Your task to perform on an android device: Search for apple airpods on amazon.com, select the first entry, add it to the cart, then select checkout. Image 0: 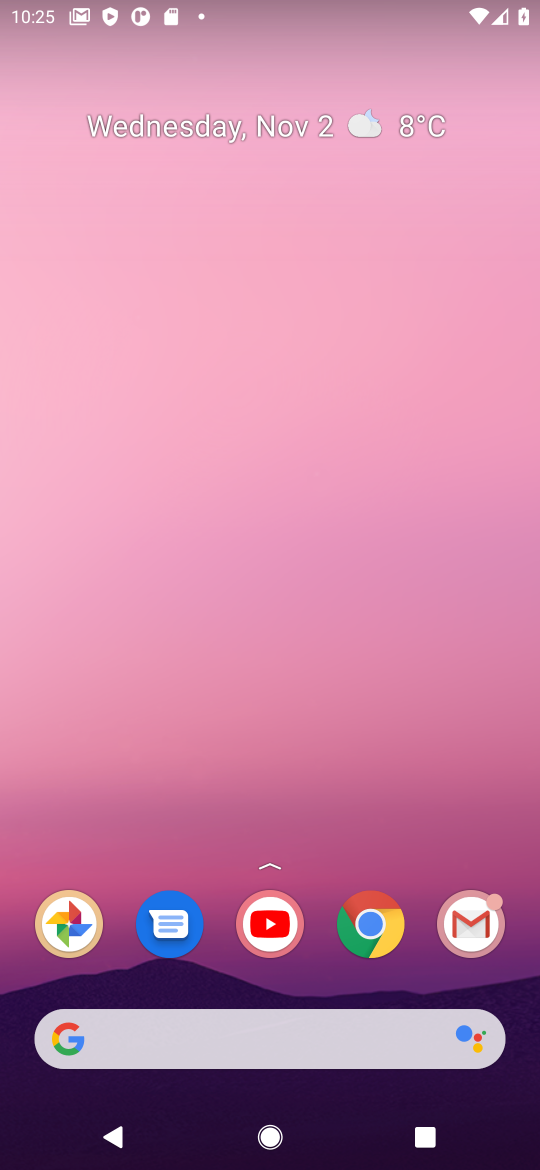
Step 0: press home button
Your task to perform on an android device: Search for apple airpods on amazon.com, select the first entry, add it to the cart, then select checkout. Image 1: 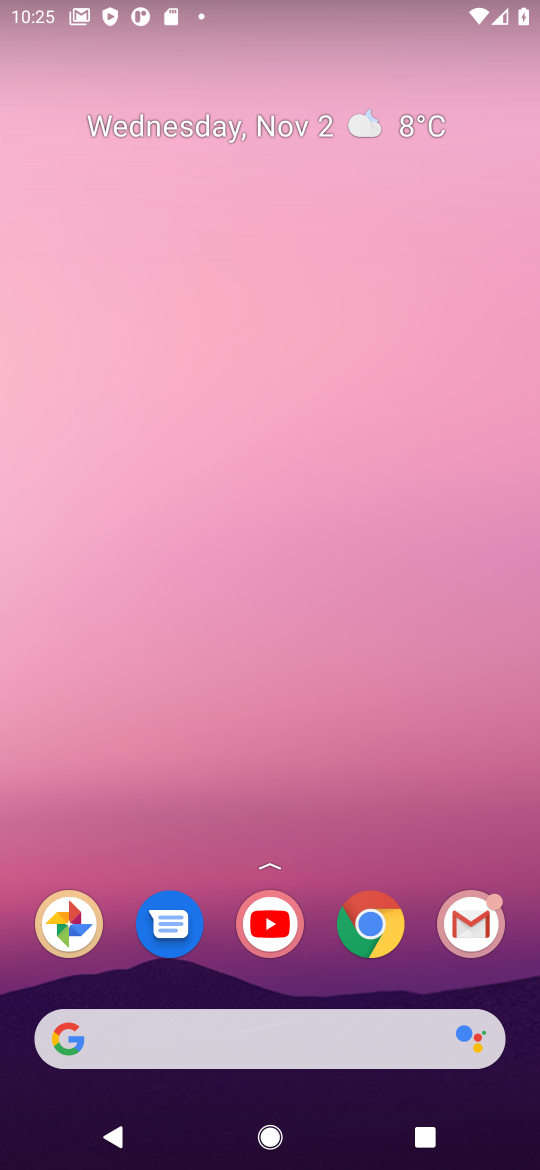
Step 1: click (361, 927)
Your task to perform on an android device: Search for apple airpods on amazon.com, select the first entry, add it to the cart, then select checkout. Image 2: 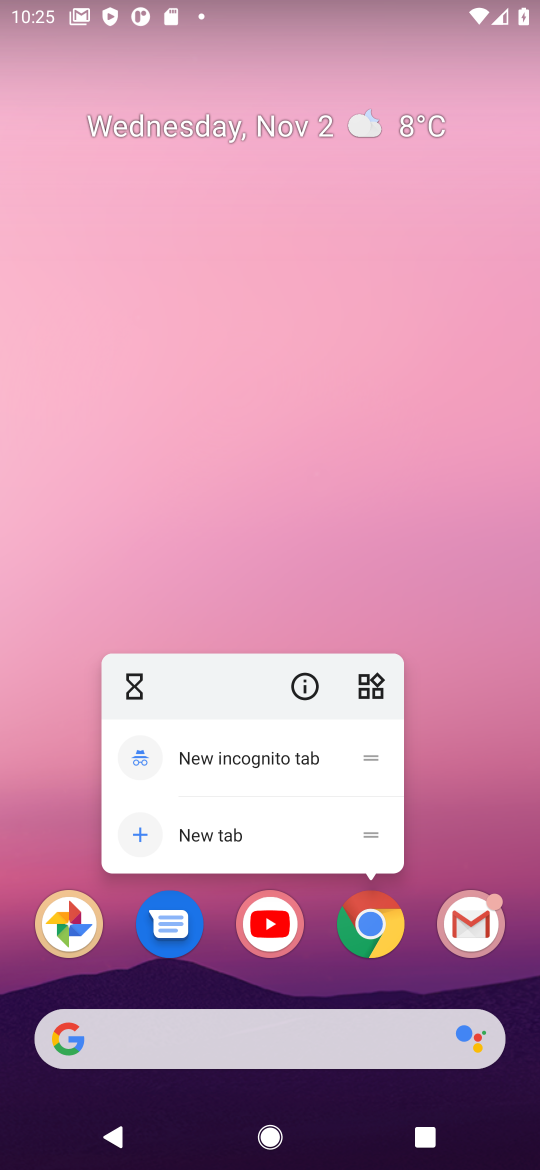
Step 2: click (360, 926)
Your task to perform on an android device: Search for apple airpods on amazon.com, select the first entry, add it to the cart, then select checkout. Image 3: 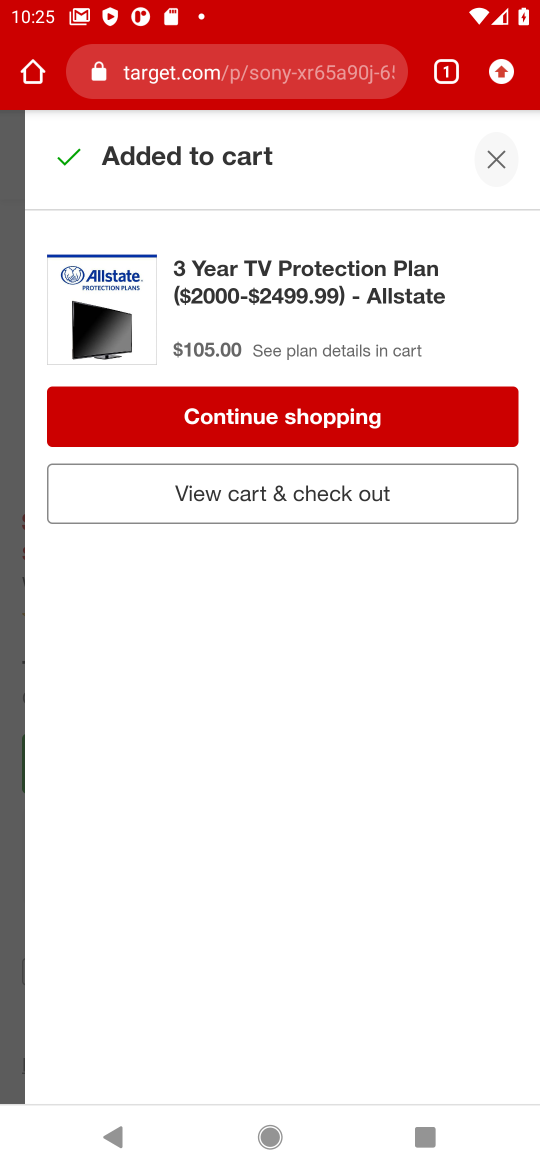
Step 3: click (253, 69)
Your task to perform on an android device: Search for apple airpods on amazon.com, select the first entry, add it to the cart, then select checkout. Image 4: 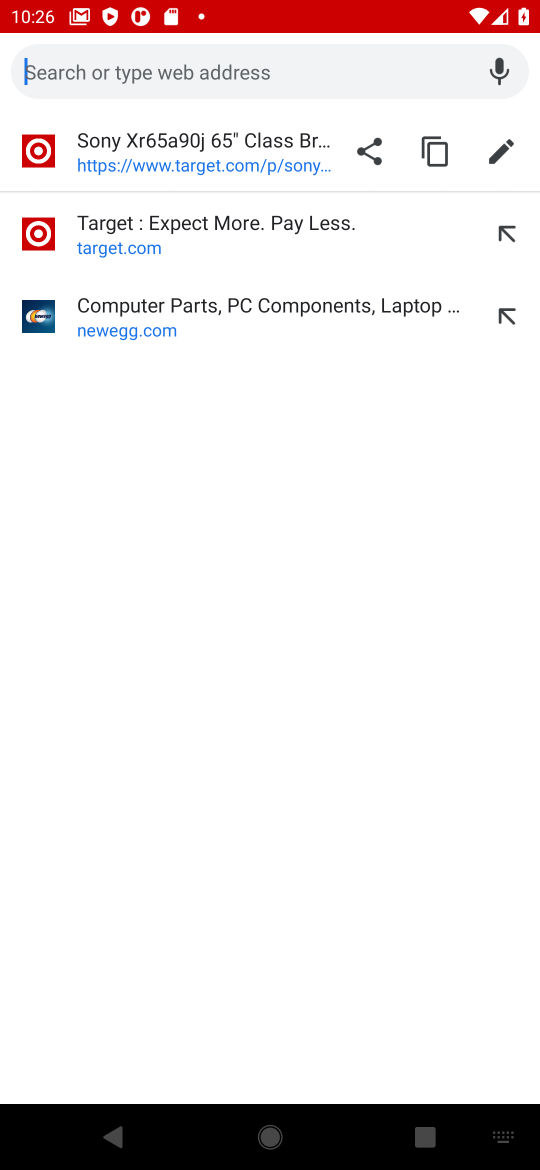
Step 4: type "amazon"
Your task to perform on an android device: Search for apple airpods on amazon.com, select the first entry, add it to the cart, then select checkout. Image 5: 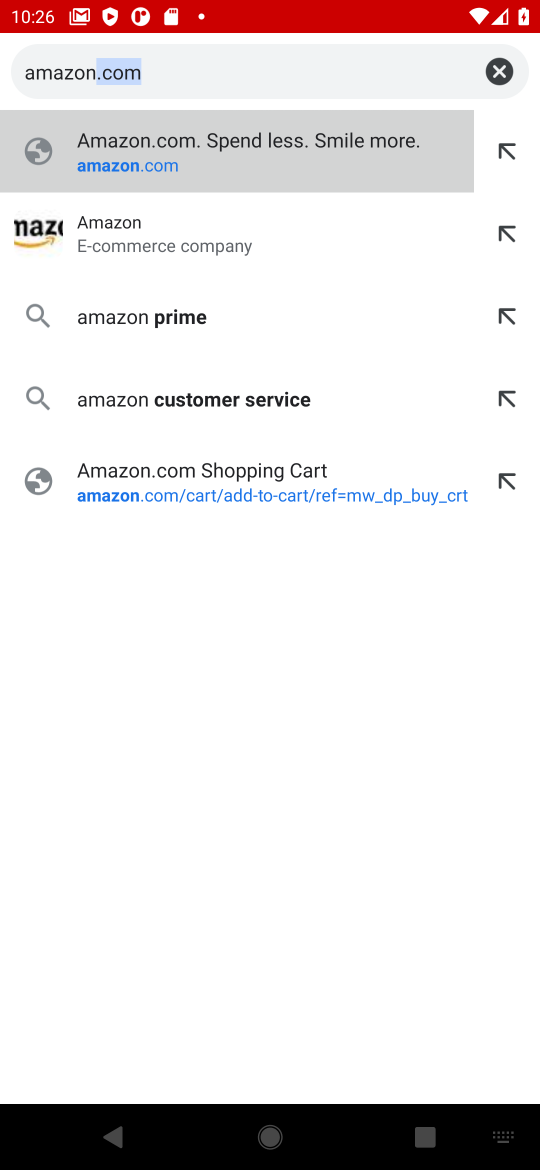
Step 5: click (70, 235)
Your task to perform on an android device: Search for apple airpods on amazon.com, select the first entry, add it to the cart, then select checkout. Image 6: 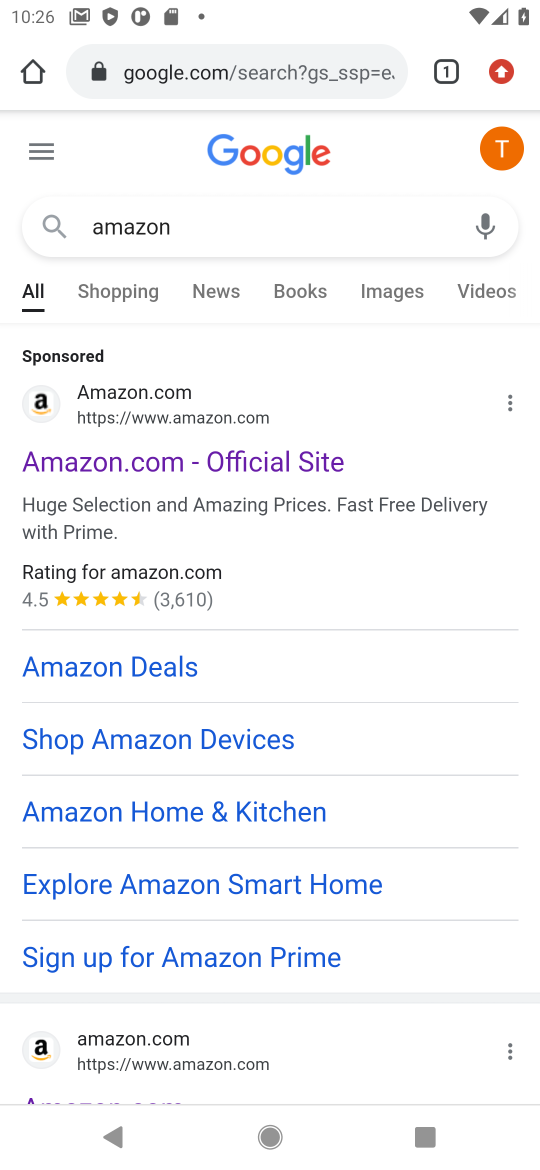
Step 6: click (103, 457)
Your task to perform on an android device: Search for apple airpods on amazon.com, select the first entry, add it to the cart, then select checkout. Image 7: 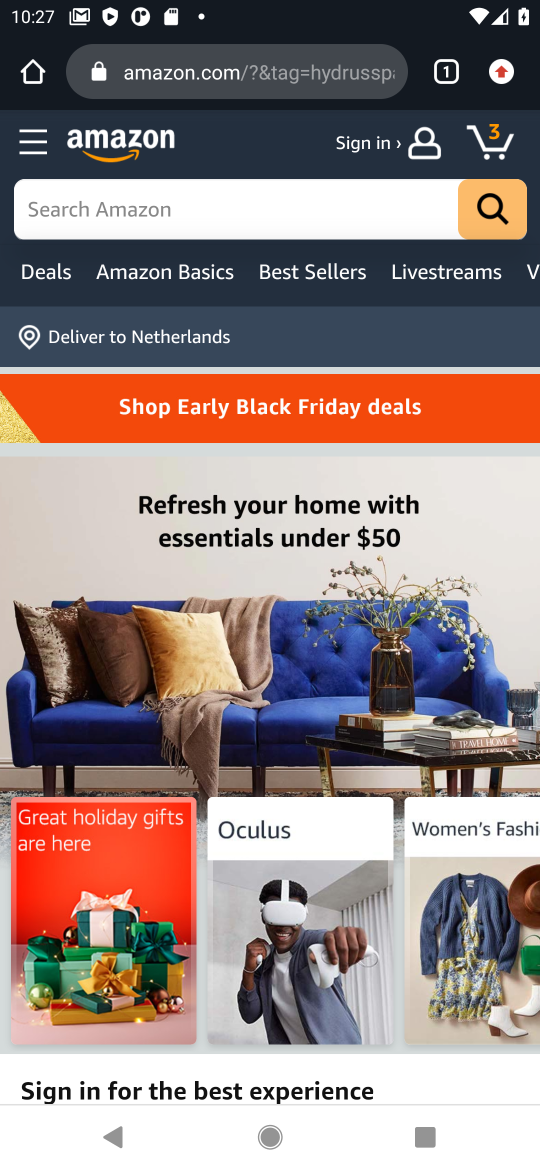
Step 7: click (102, 205)
Your task to perform on an android device: Search for apple airpods on amazon.com, select the first entry, add it to the cart, then select checkout. Image 8: 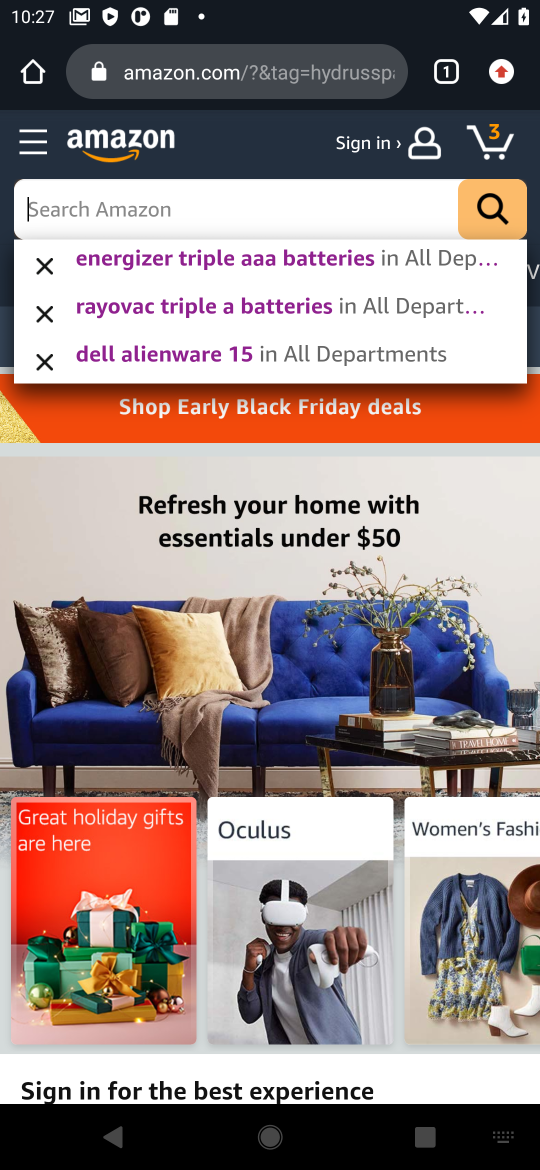
Step 8: type "apple airpods"
Your task to perform on an android device: Search for apple airpods on amazon.com, select the first entry, add it to the cart, then select checkout. Image 9: 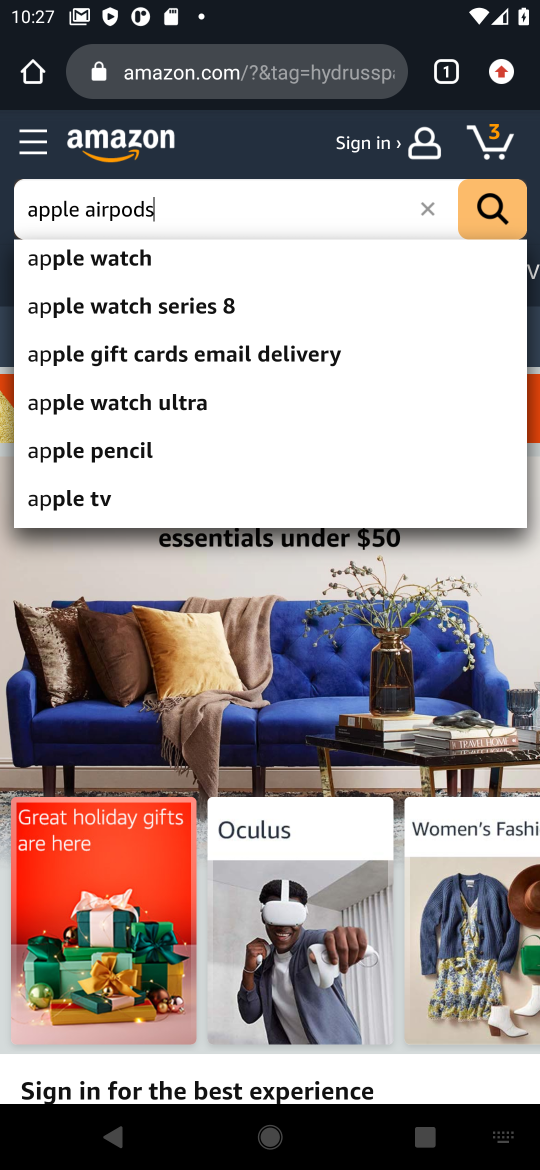
Step 9: type ""
Your task to perform on an android device: Search for apple airpods on amazon.com, select the first entry, add it to the cart, then select checkout. Image 10: 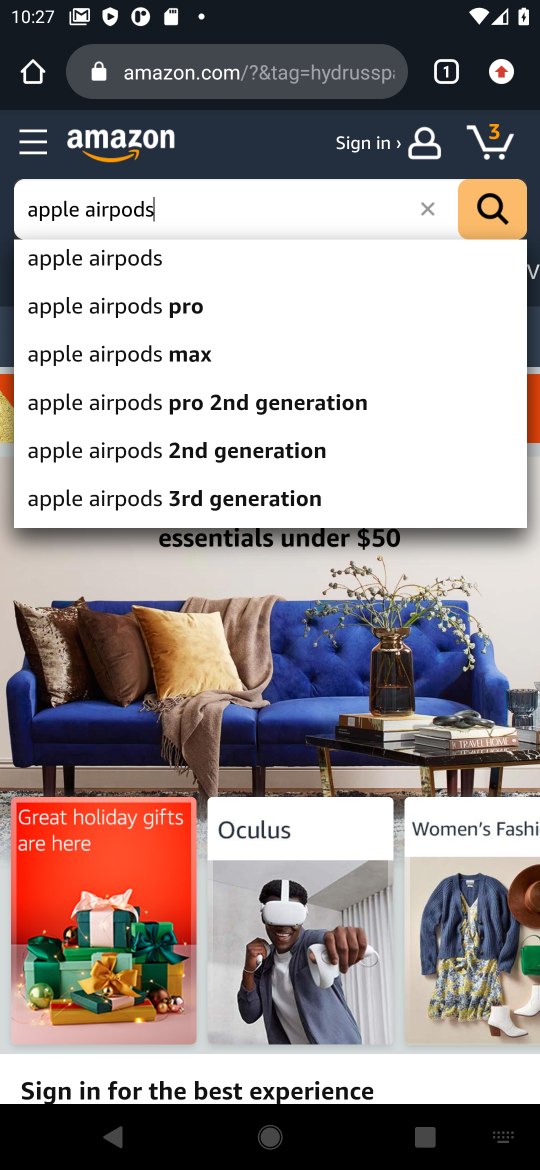
Step 10: click (111, 267)
Your task to perform on an android device: Search for apple airpods on amazon.com, select the first entry, add it to the cart, then select checkout. Image 11: 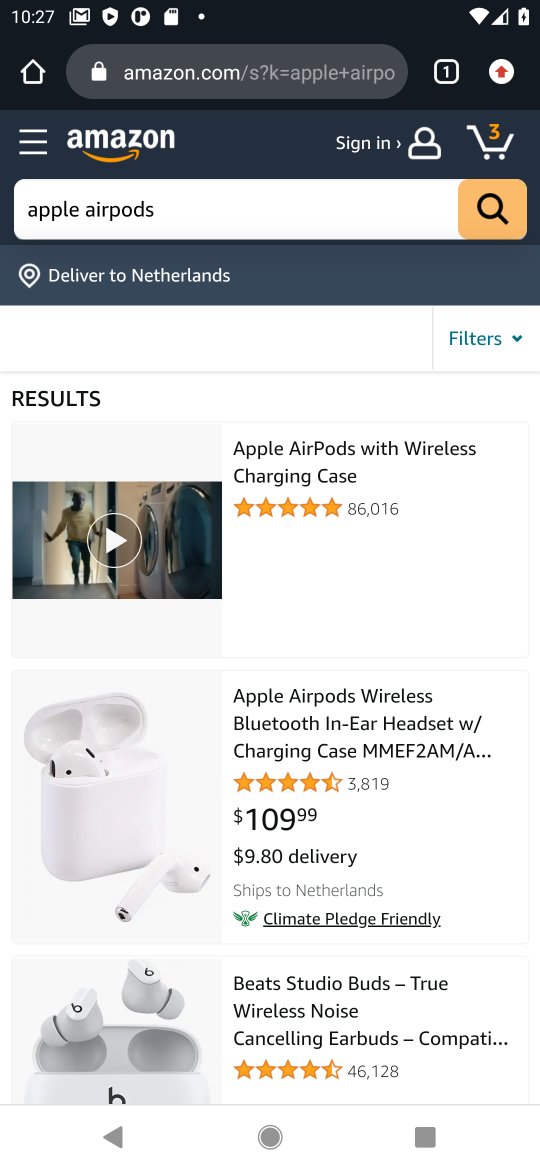
Step 11: click (399, 725)
Your task to perform on an android device: Search for apple airpods on amazon.com, select the first entry, add it to the cart, then select checkout. Image 12: 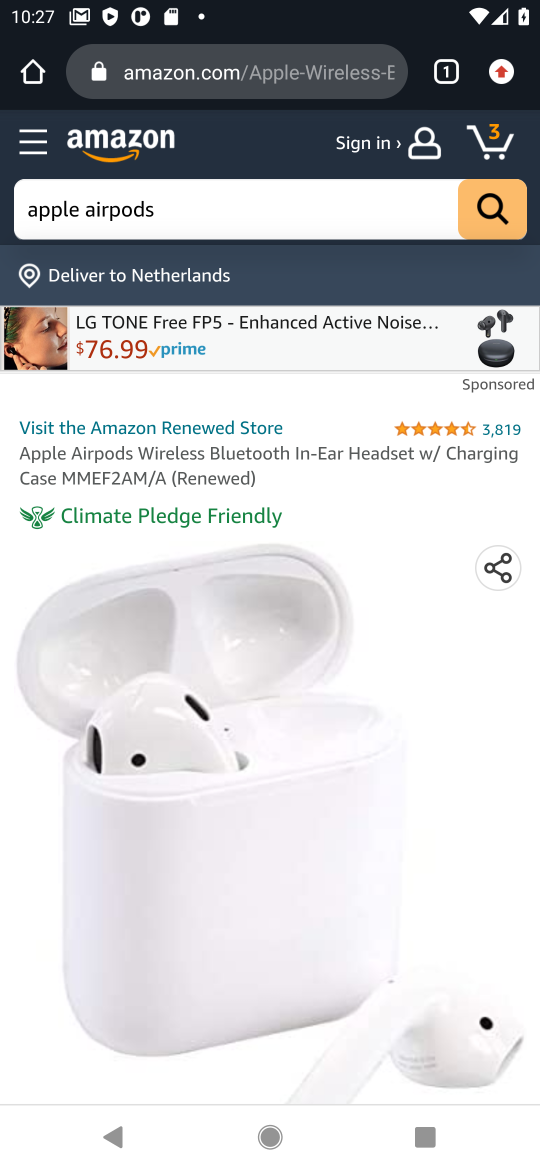
Step 12: drag from (235, 810) to (304, 554)
Your task to perform on an android device: Search for apple airpods on amazon.com, select the first entry, add it to the cart, then select checkout. Image 13: 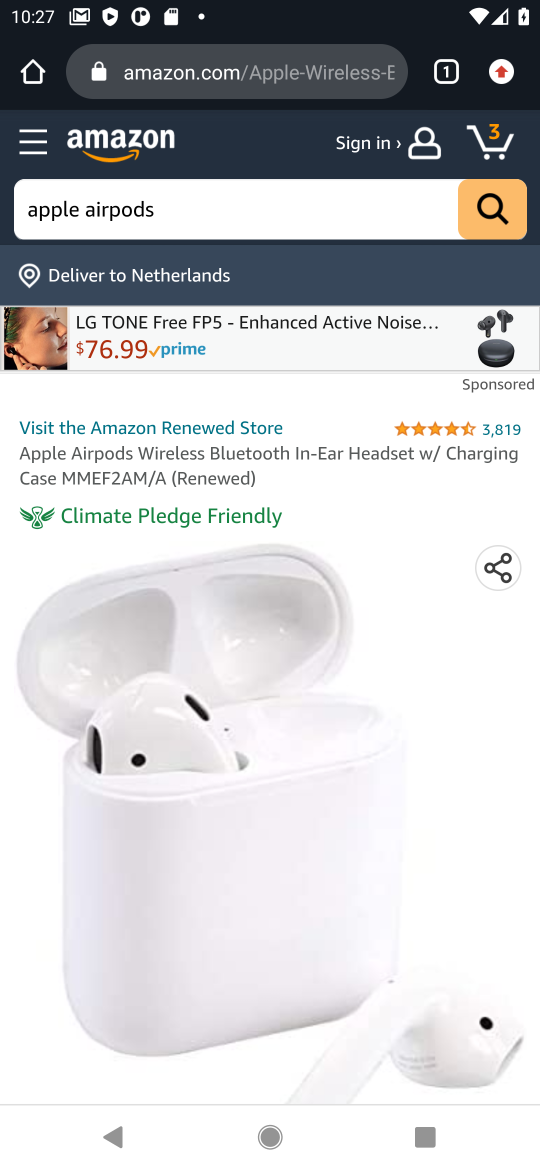
Step 13: drag from (192, 759) to (234, 103)
Your task to perform on an android device: Search for apple airpods on amazon.com, select the first entry, add it to the cart, then select checkout. Image 14: 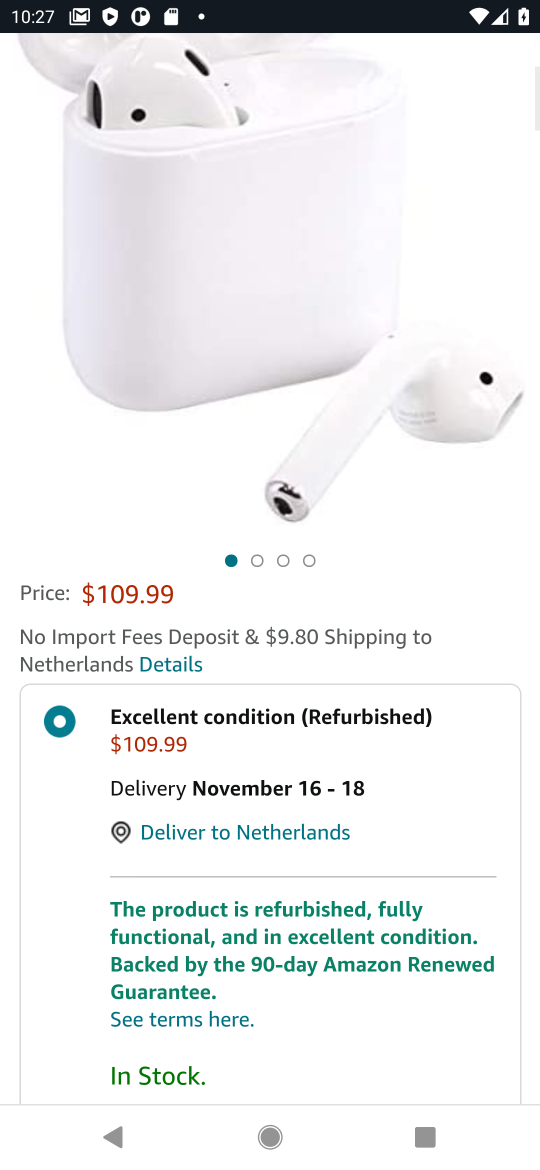
Step 14: drag from (277, 975) to (222, 243)
Your task to perform on an android device: Search for apple airpods on amazon.com, select the first entry, add it to the cart, then select checkout. Image 15: 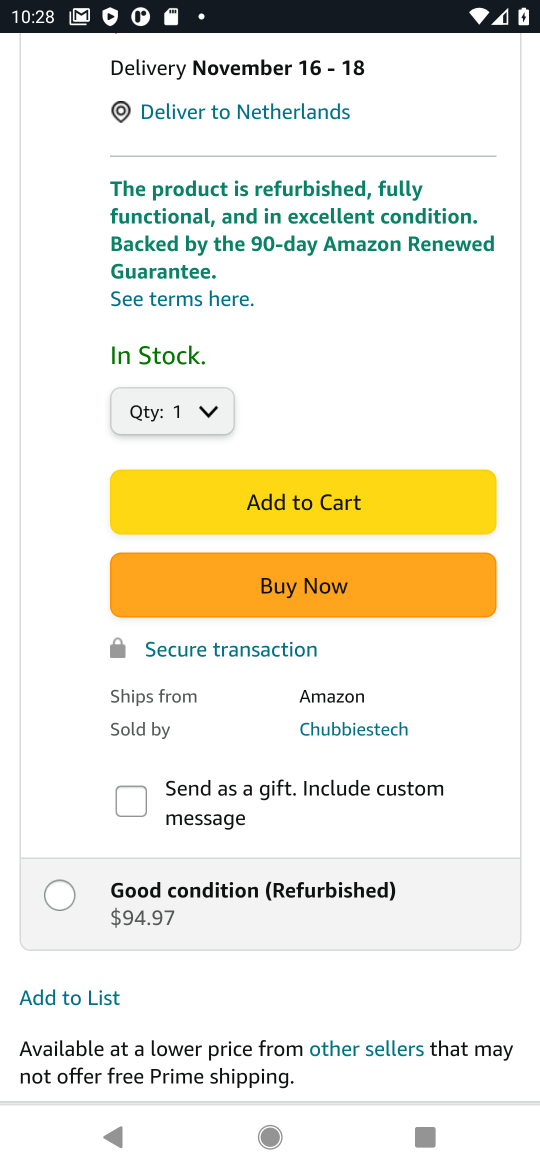
Step 15: click (290, 501)
Your task to perform on an android device: Search for apple airpods on amazon.com, select the first entry, add it to the cart, then select checkout. Image 16: 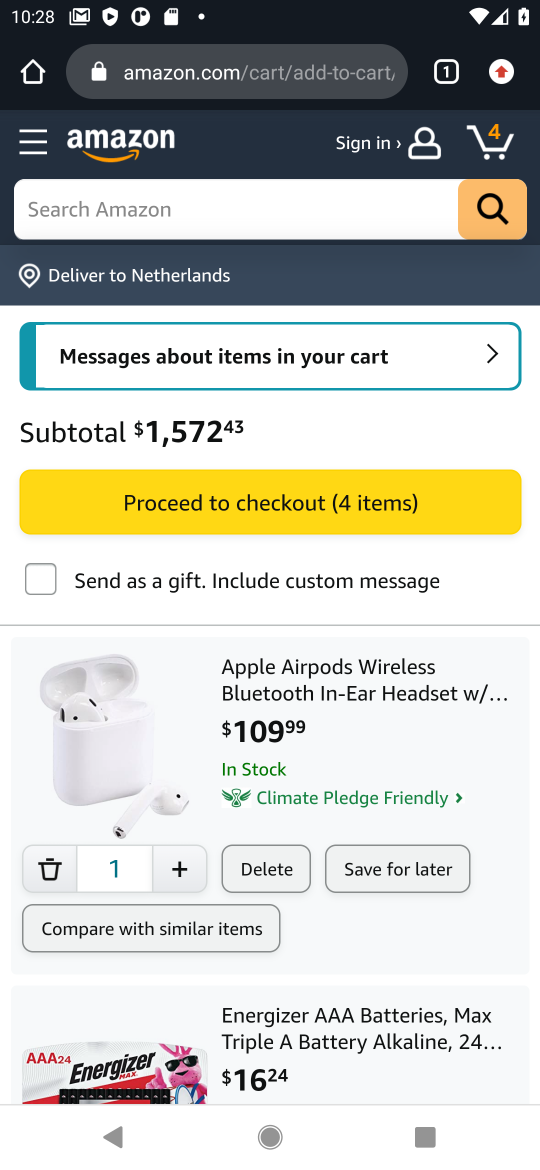
Step 16: drag from (343, 914) to (475, 299)
Your task to perform on an android device: Search for apple airpods on amazon.com, select the first entry, add it to the cart, then select checkout. Image 17: 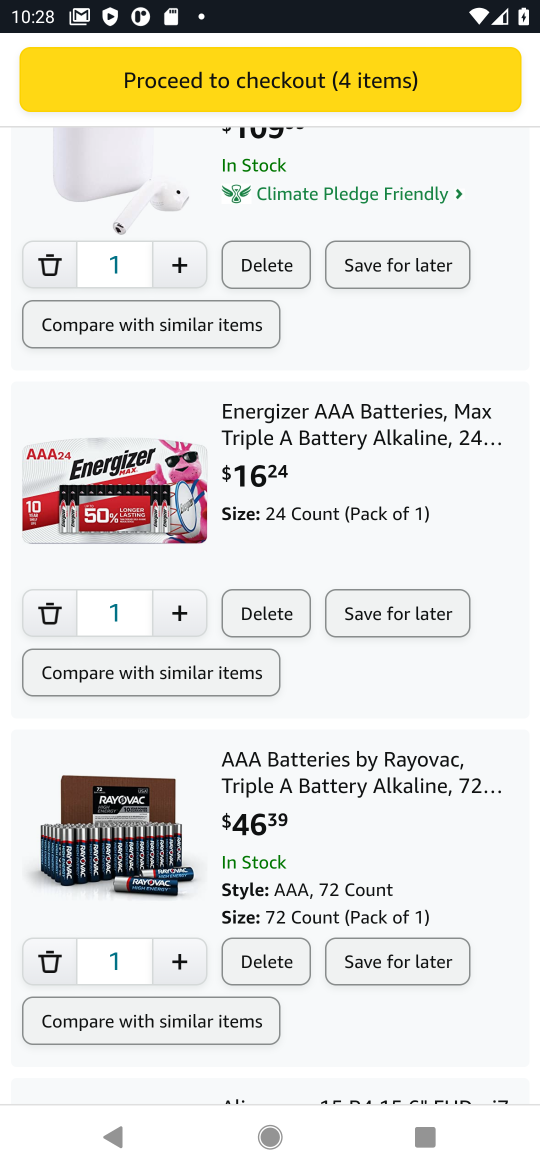
Step 17: click (277, 616)
Your task to perform on an android device: Search for apple airpods on amazon.com, select the first entry, add it to the cart, then select checkout. Image 18: 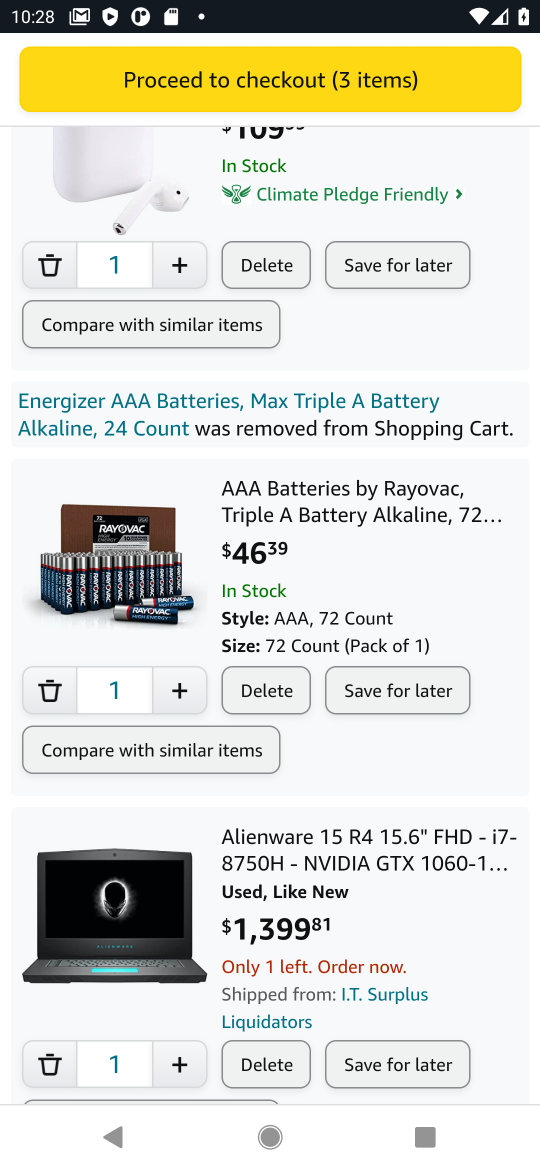
Step 18: click (258, 1062)
Your task to perform on an android device: Search for apple airpods on amazon.com, select the first entry, add it to the cart, then select checkout. Image 19: 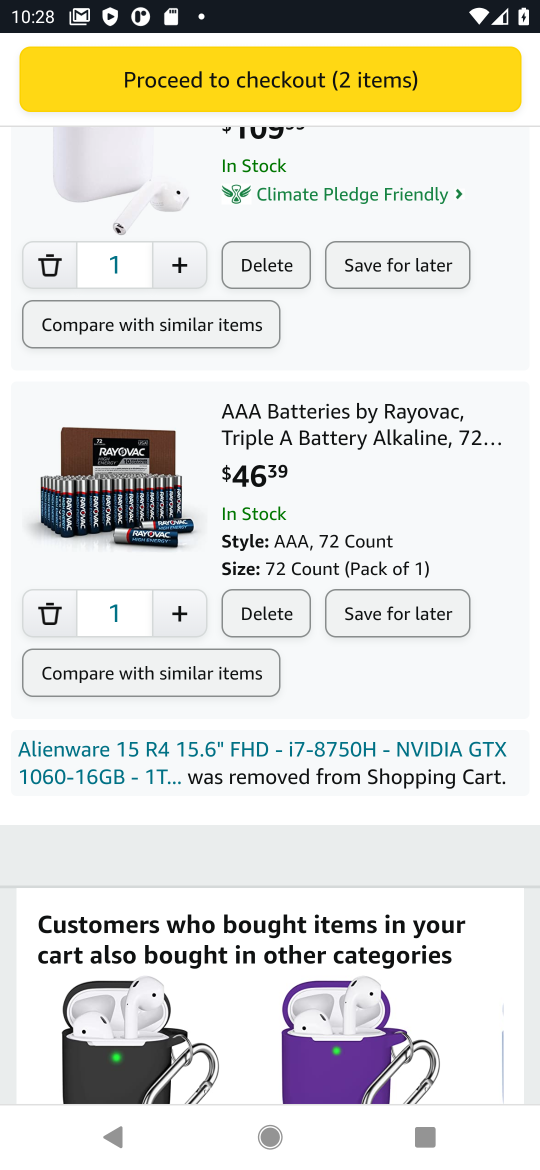
Step 19: click (258, 618)
Your task to perform on an android device: Search for apple airpods on amazon.com, select the first entry, add it to the cart, then select checkout. Image 20: 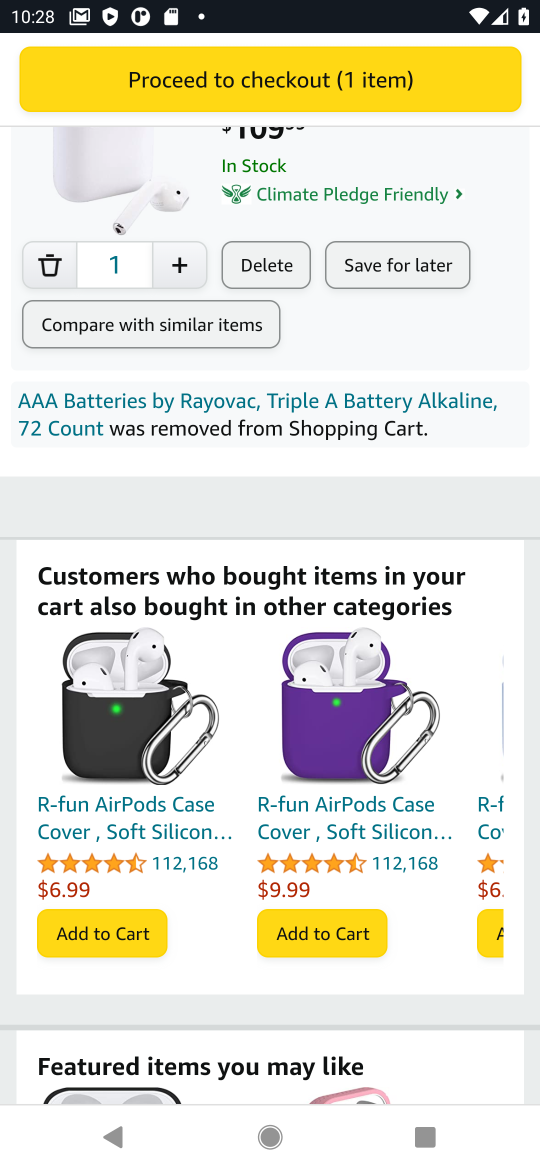
Step 20: drag from (413, 296) to (386, 867)
Your task to perform on an android device: Search for apple airpods on amazon.com, select the first entry, add it to the cart, then select checkout. Image 21: 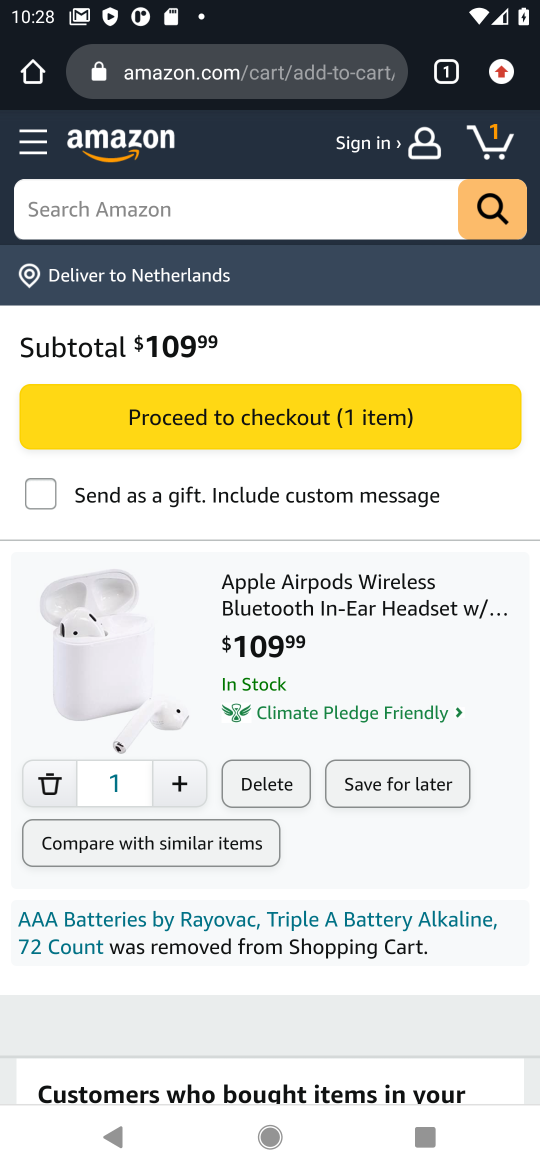
Step 21: click (291, 427)
Your task to perform on an android device: Search for apple airpods on amazon.com, select the first entry, add it to the cart, then select checkout. Image 22: 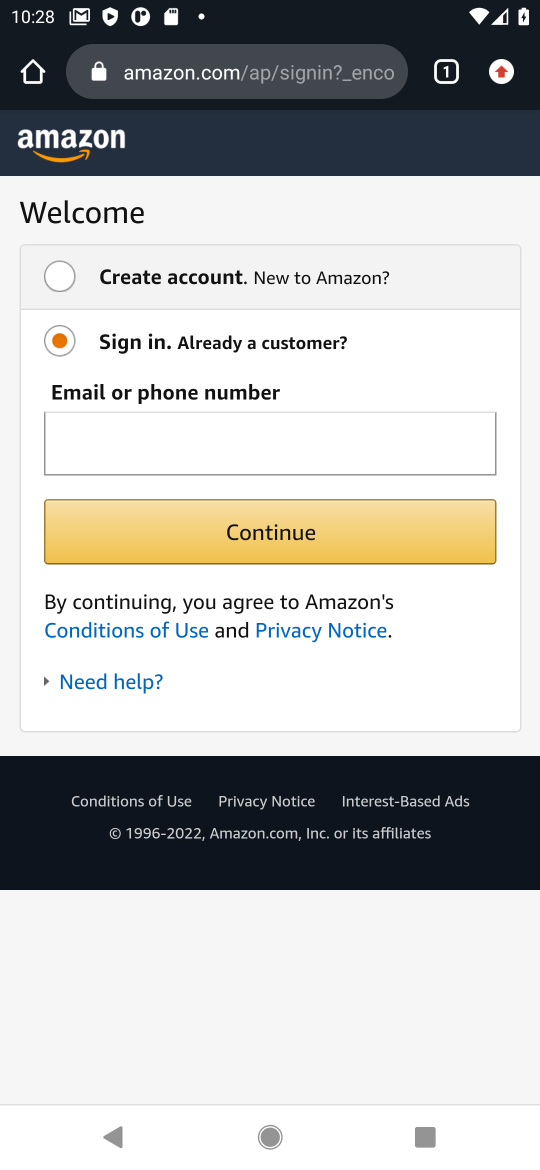
Step 22: task complete